Your task to perform on an android device: allow notifications from all sites in the chrome app Image 0: 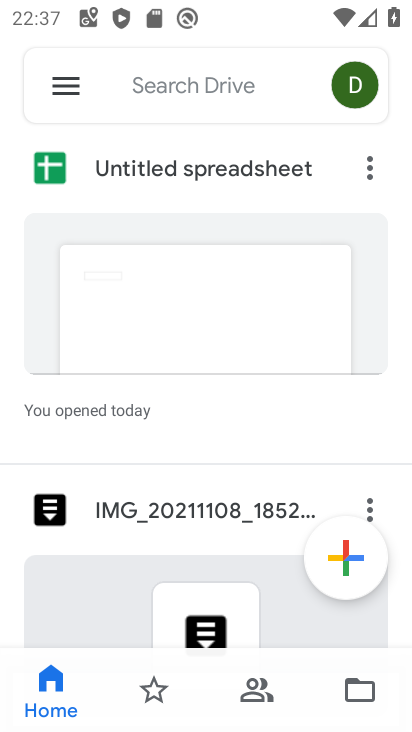
Step 0: press home button
Your task to perform on an android device: allow notifications from all sites in the chrome app Image 1: 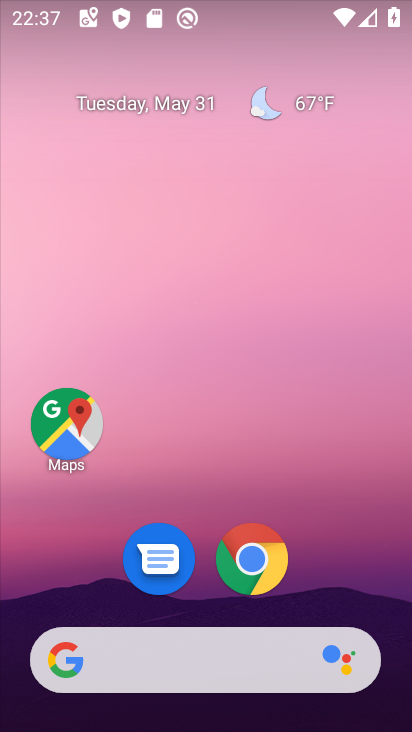
Step 1: click (251, 561)
Your task to perform on an android device: allow notifications from all sites in the chrome app Image 2: 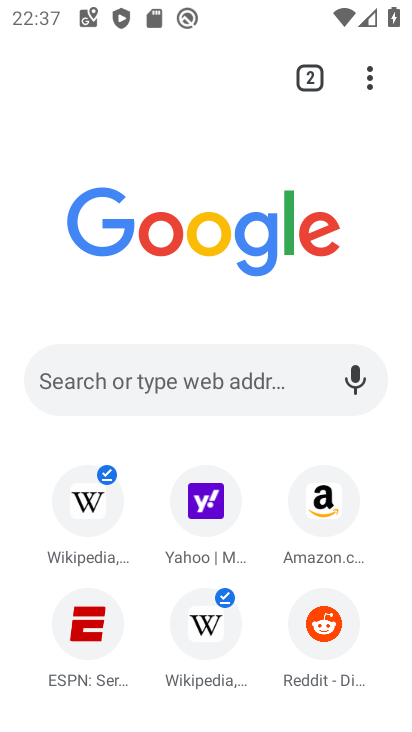
Step 2: click (362, 71)
Your task to perform on an android device: allow notifications from all sites in the chrome app Image 3: 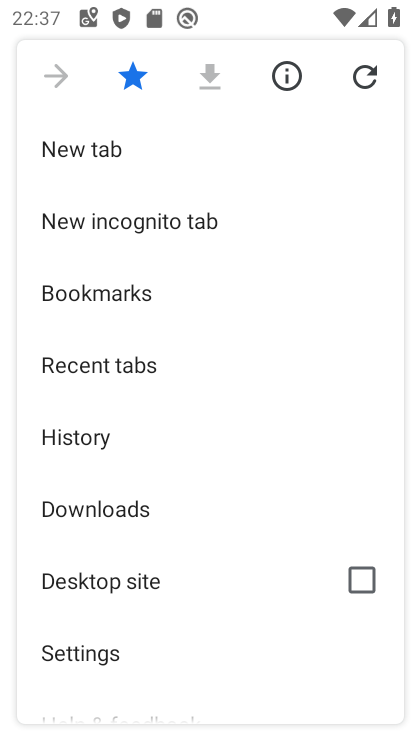
Step 3: click (102, 645)
Your task to perform on an android device: allow notifications from all sites in the chrome app Image 4: 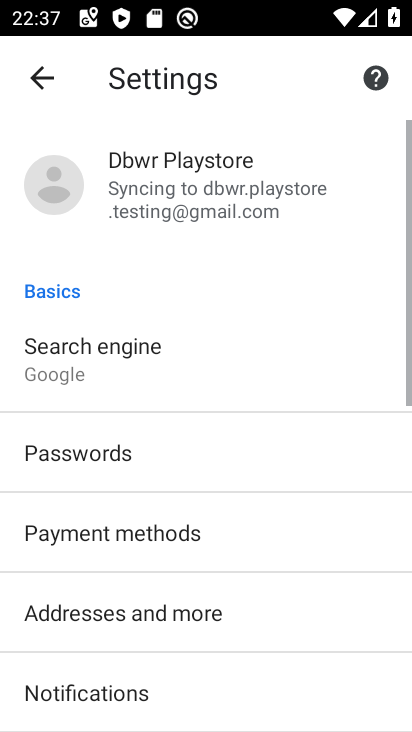
Step 4: drag from (284, 582) to (243, 163)
Your task to perform on an android device: allow notifications from all sites in the chrome app Image 5: 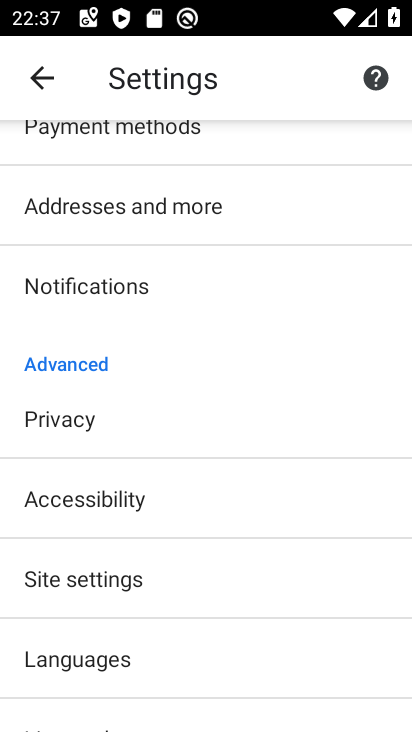
Step 5: click (121, 577)
Your task to perform on an android device: allow notifications from all sites in the chrome app Image 6: 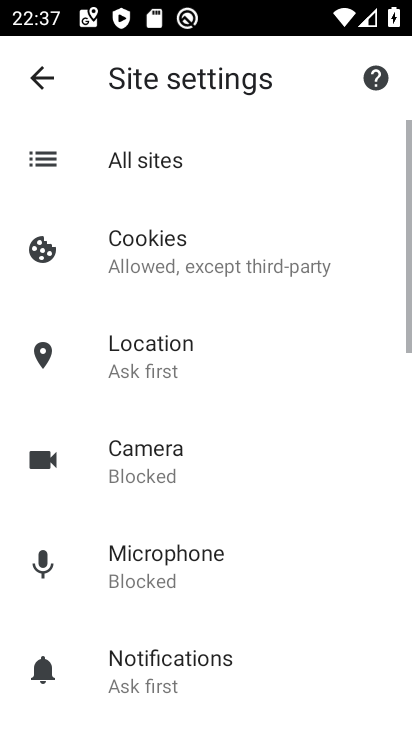
Step 6: click (207, 679)
Your task to perform on an android device: allow notifications from all sites in the chrome app Image 7: 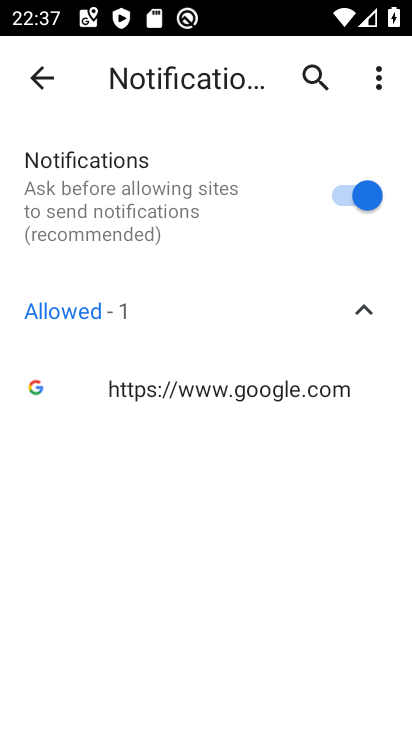
Step 7: task complete